Your task to perform on an android device: Open Yahoo.com Image 0: 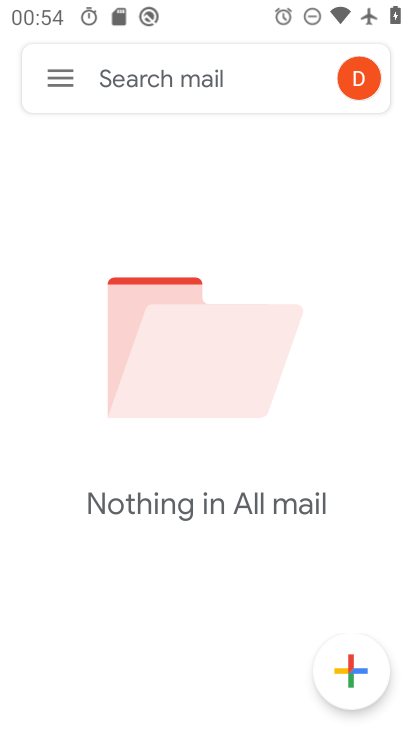
Step 0: press home button
Your task to perform on an android device: Open Yahoo.com Image 1: 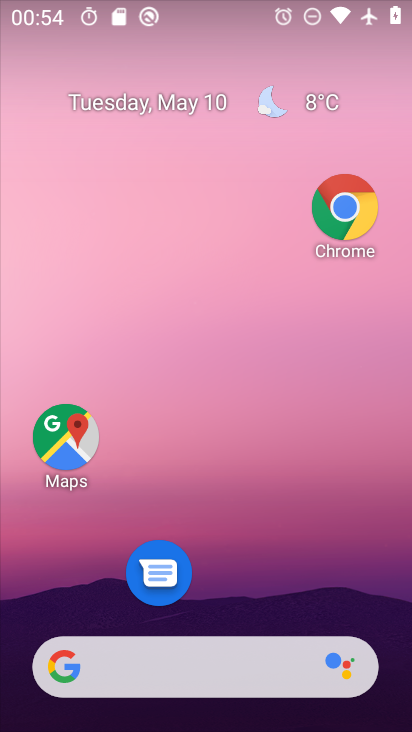
Step 1: click (357, 211)
Your task to perform on an android device: Open Yahoo.com Image 2: 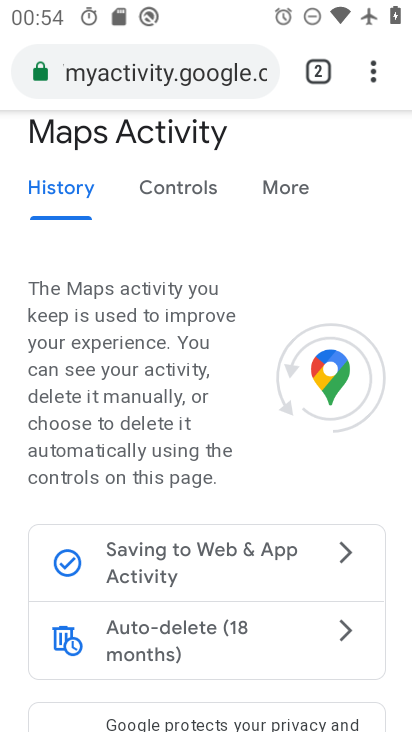
Step 2: click (159, 90)
Your task to perform on an android device: Open Yahoo.com Image 3: 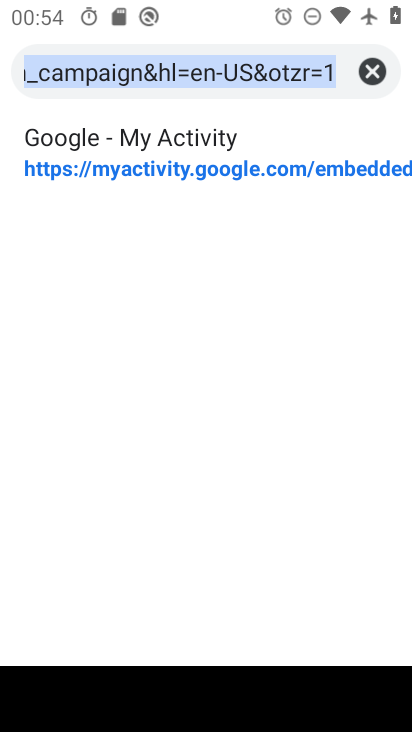
Step 3: type "yahoo.com"
Your task to perform on an android device: Open Yahoo.com Image 4: 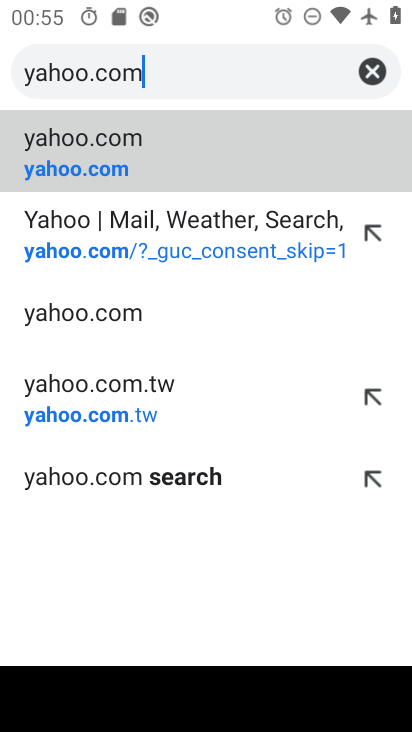
Step 4: click (83, 163)
Your task to perform on an android device: Open Yahoo.com Image 5: 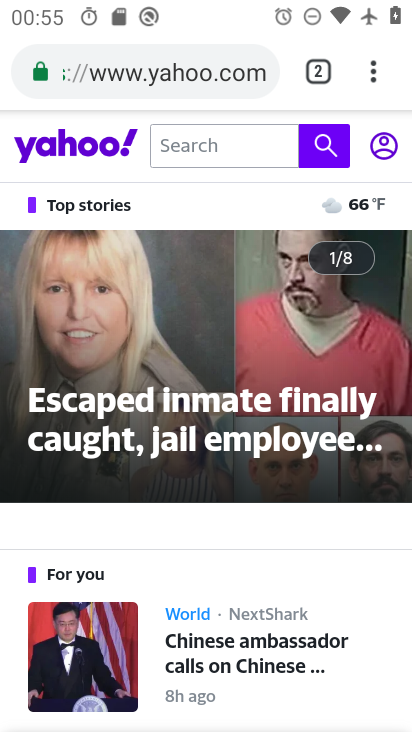
Step 5: task complete